Your task to perform on an android device: Open Google Chrome and click the shortcut for Amazon.com Image 0: 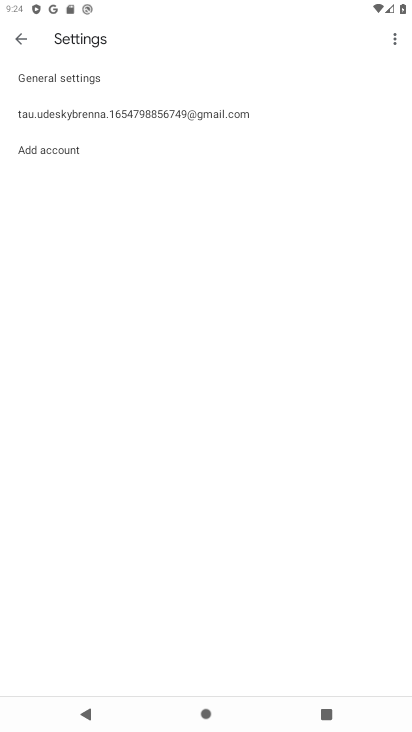
Step 0: press home button
Your task to perform on an android device: Open Google Chrome and click the shortcut for Amazon.com Image 1: 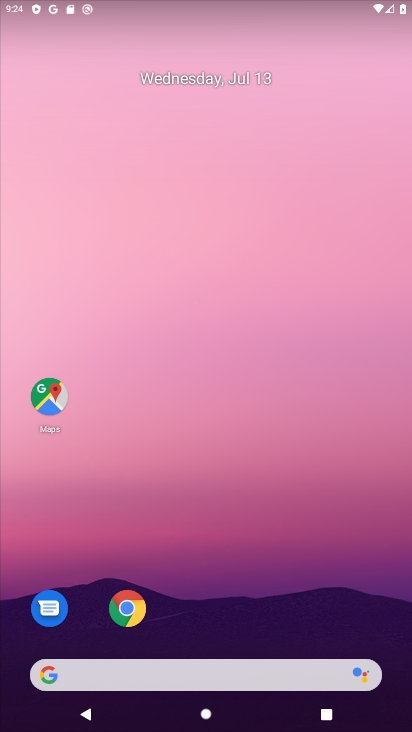
Step 1: drag from (164, 646) to (118, 78)
Your task to perform on an android device: Open Google Chrome and click the shortcut for Amazon.com Image 2: 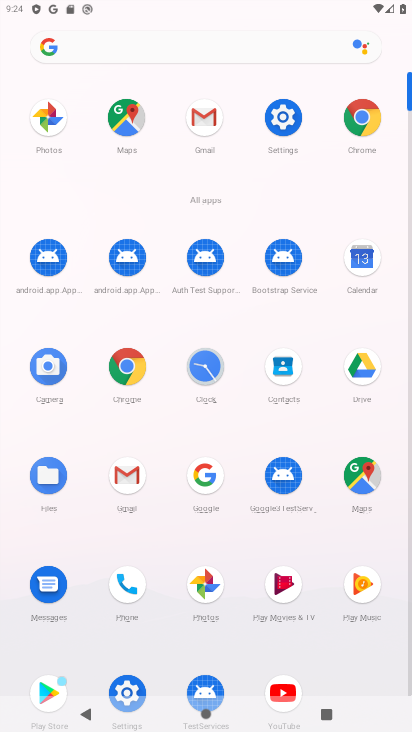
Step 2: click (141, 364)
Your task to perform on an android device: Open Google Chrome and click the shortcut for Amazon.com Image 3: 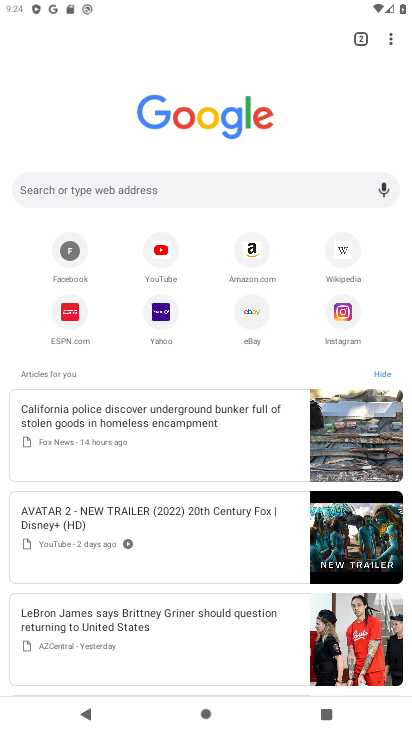
Step 3: click (255, 258)
Your task to perform on an android device: Open Google Chrome and click the shortcut for Amazon.com Image 4: 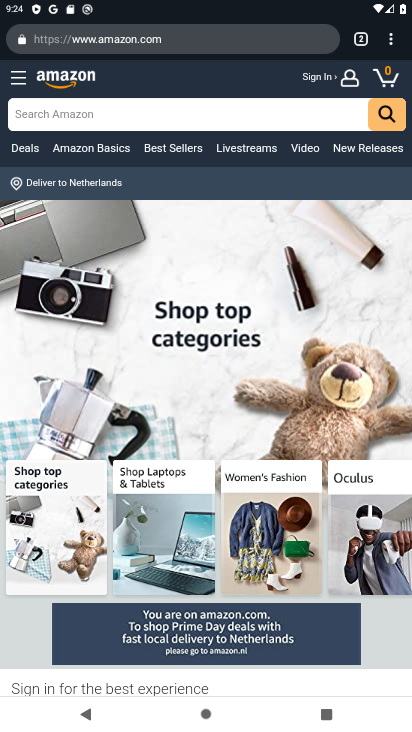
Step 4: drag from (389, 40) to (297, 397)
Your task to perform on an android device: Open Google Chrome and click the shortcut for Amazon.com Image 5: 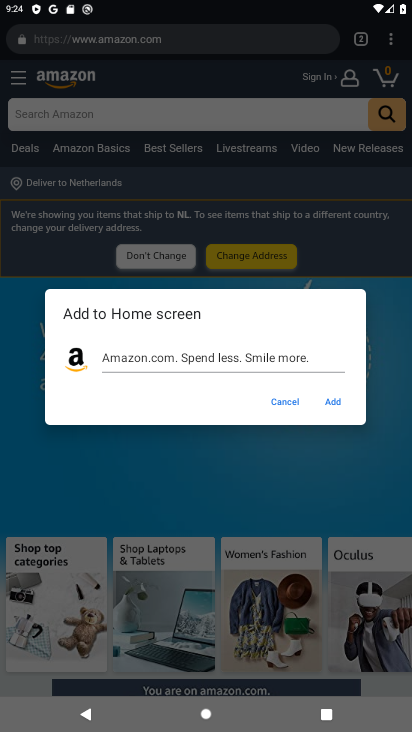
Step 5: click (343, 401)
Your task to perform on an android device: Open Google Chrome and click the shortcut for Amazon.com Image 6: 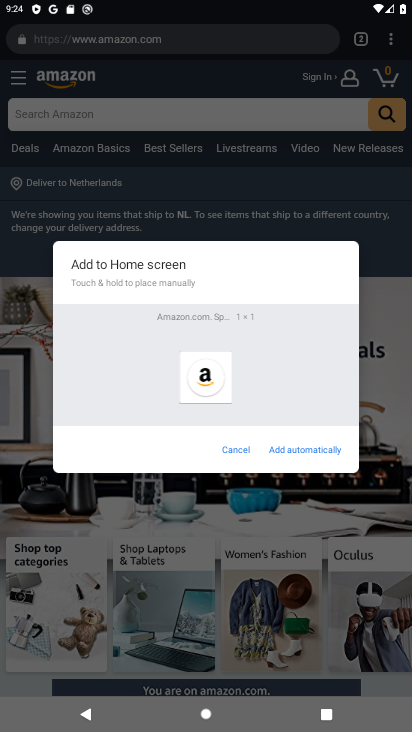
Step 6: click (310, 447)
Your task to perform on an android device: Open Google Chrome and click the shortcut for Amazon.com Image 7: 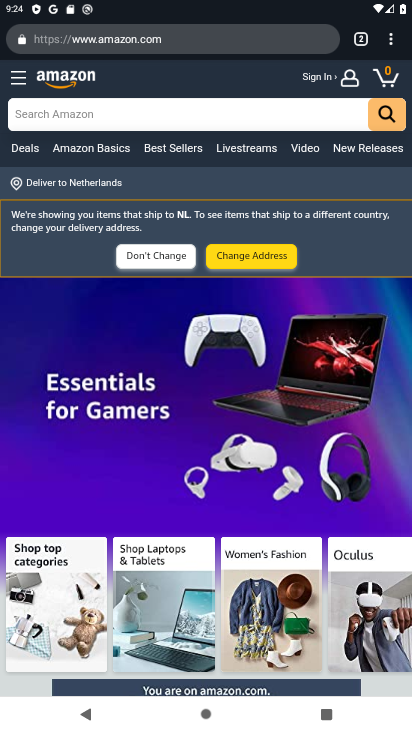
Step 7: task complete